Your task to perform on an android device: Open the phone app and click the voicemail tab. Image 0: 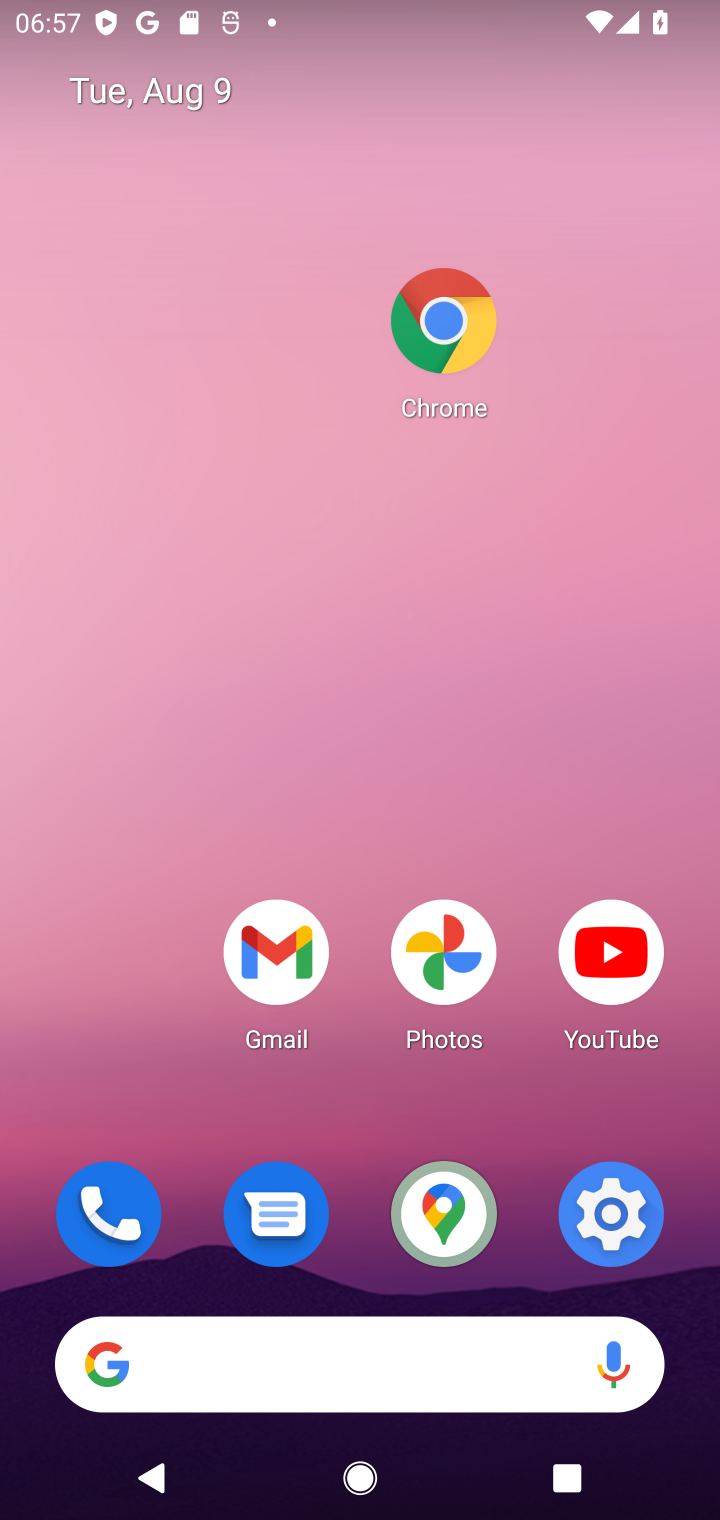
Step 0: drag from (507, 1334) to (309, 532)
Your task to perform on an android device: Open the phone app and click the voicemail tab. Image 1: 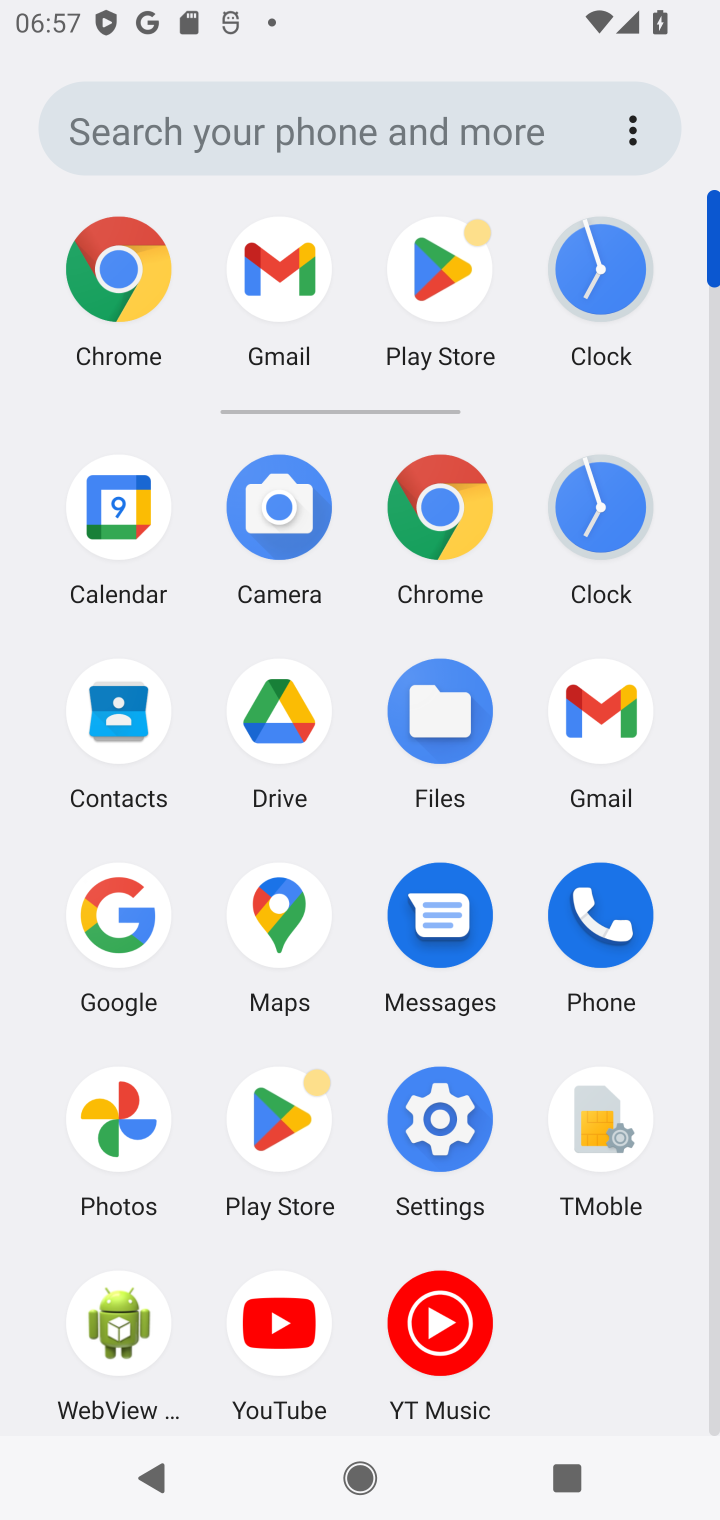
Step 1: click (584, 916)
Your task to perform on an android device: Open the phone app and click the voicemail tab. Image 2: 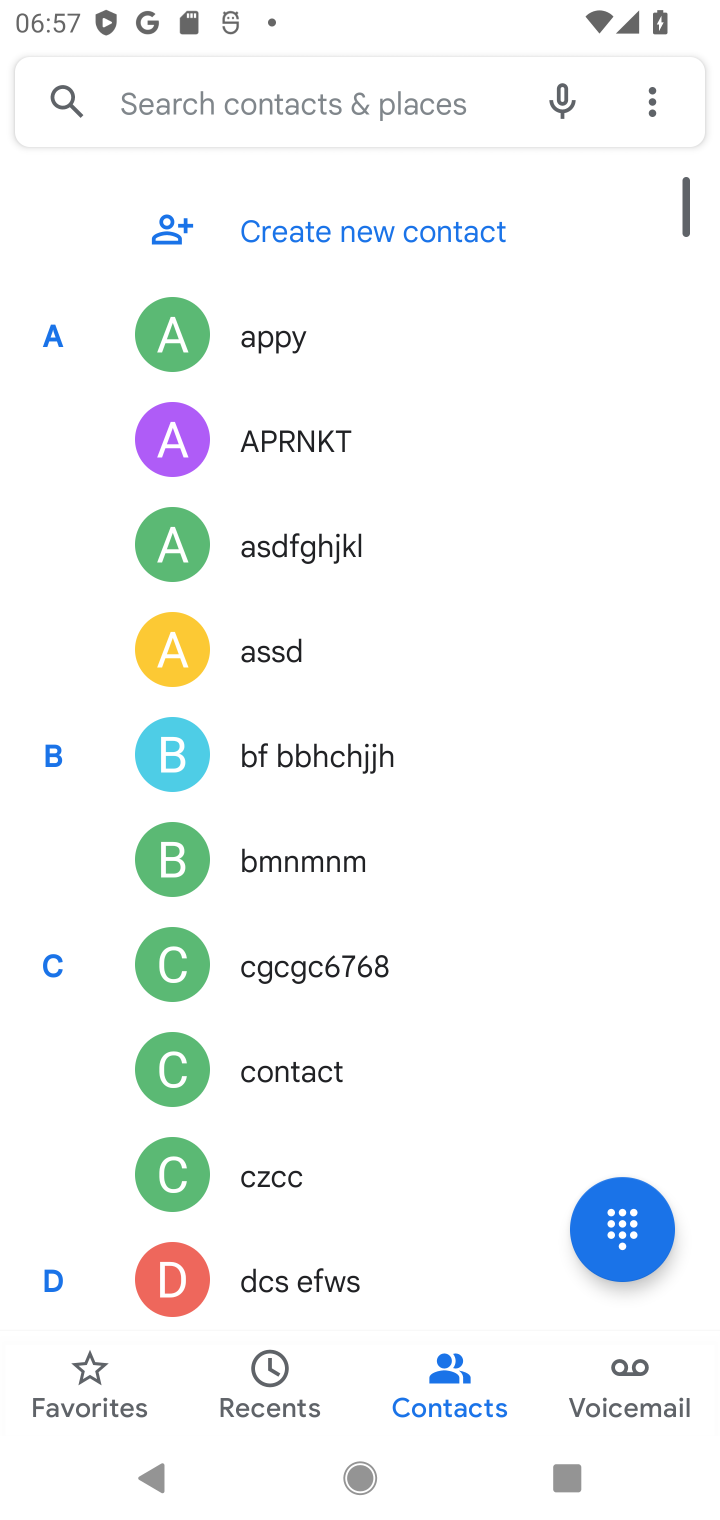
Step 2: click (597, 1372)
Your task to perform on an android device: Open the phone app and click the voicemail tab. Image 3: 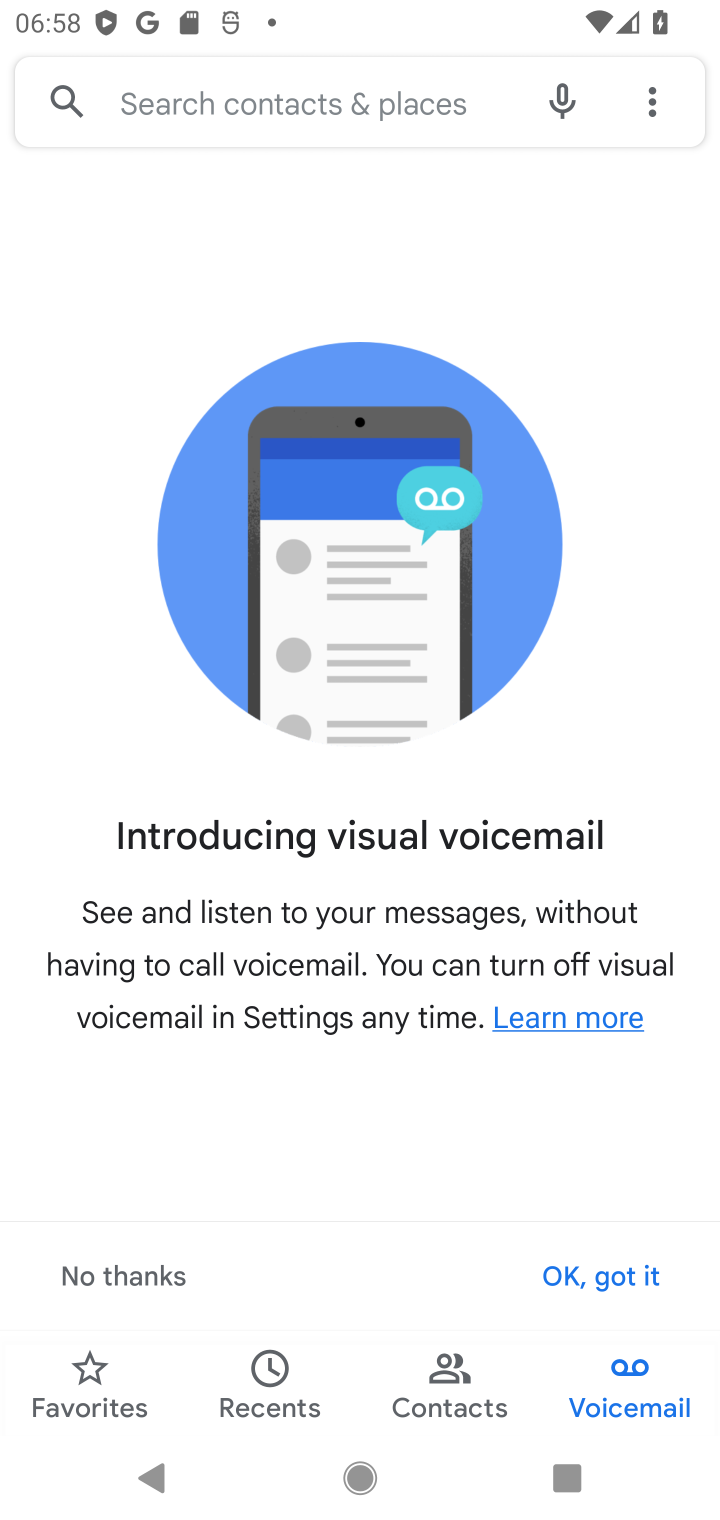
Step 3: task complete